Your task to perform on an android device: Is it going to rain today? Image 0: 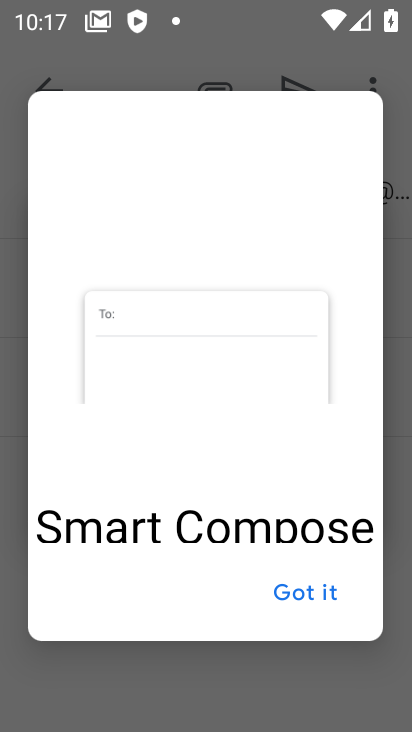
Step 0: press home button
Your task to perform on an android device: Is it going to rain today? Image 1: 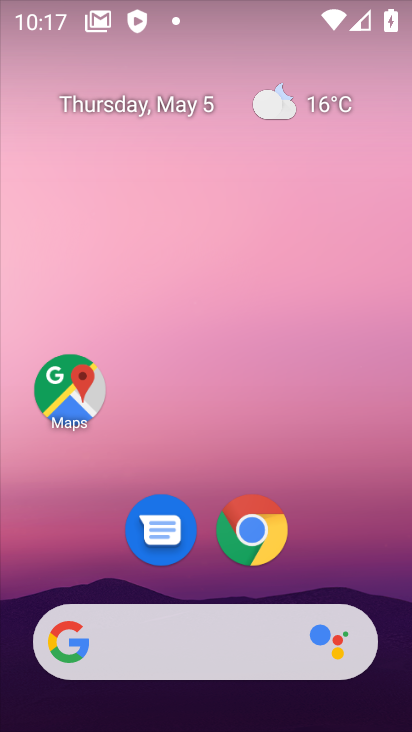
Step 1: click (305, 95)
Your task to perform on an android device: Is it going to rain today? Image 2: 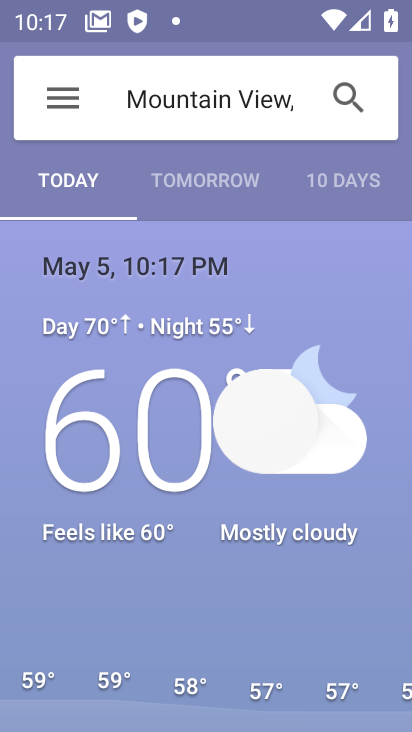
Step 2: task complete